Your task to perform on an android device: Search for pizza restaurants on Maps Image 0: 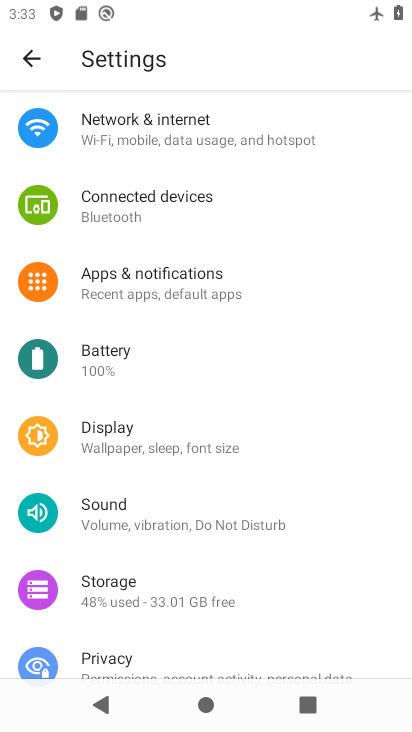
Step 0: press home button
Your task to perform on an android device: Search for pizza restaurants on Maps Image 1: 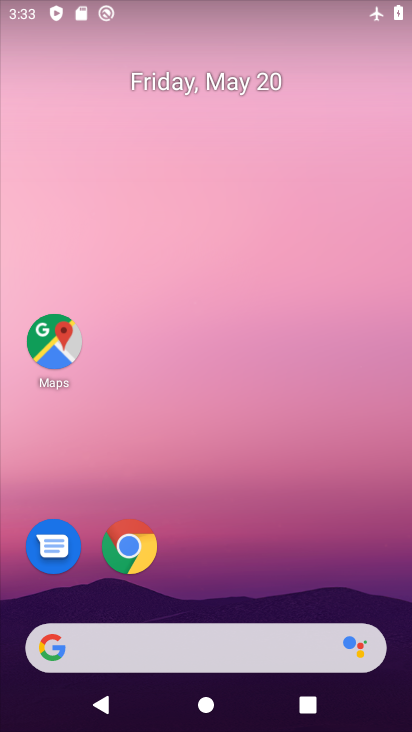
Step 1: click (49, 345)
Your task to perform on an android device: Search for pizza restaurants on Maps Image 2: 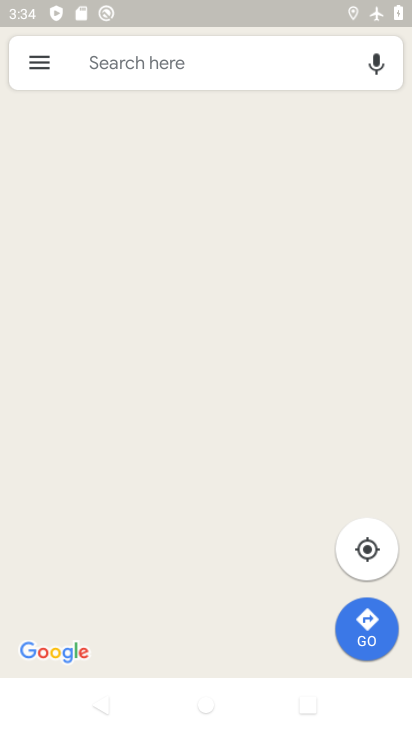
Step 2: click (224, 65)
Your task to perform on an android device: Search for pizza restaurants on Maps Image 3: 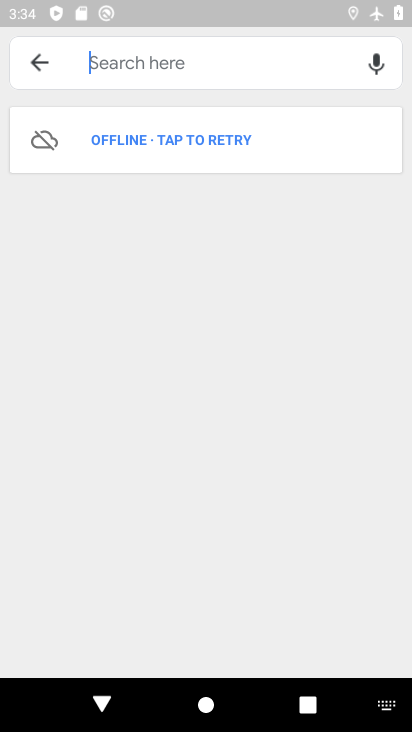
Step 3: type "pizza restaurants"
Your task to perform on an android device: Search for pizza restaurants on Maps Image 4: 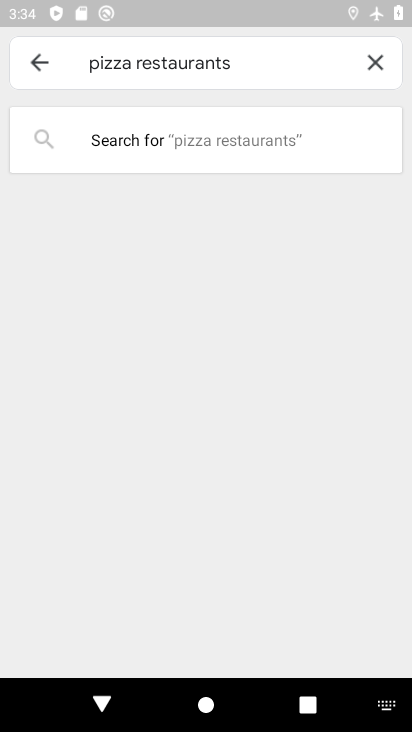
Step 4: click (210, 142)
Your task to perform on an android device: Search for pizza restaurants on Maps Image 5: 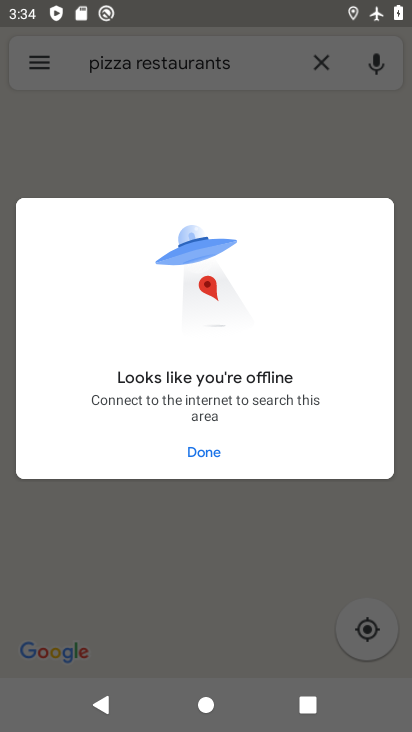
Step 5: task complete